Your task to perform on an android device: Go to battery settings Image 0: 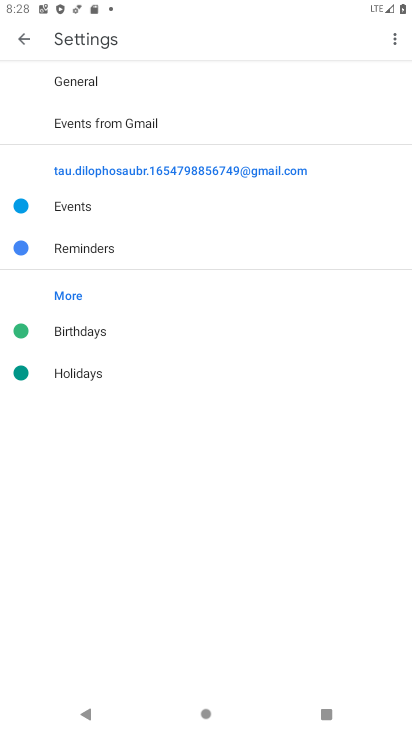
Step 0: press home button
Your task to perform on an android device: Go to battery settings Image 1: 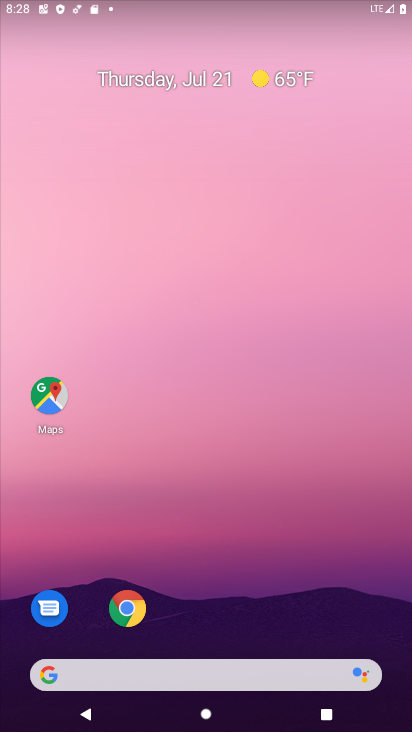
Step 1: drag from (204, 675) to (203, 164)
Your task to perform on an android device: Go to battery settings Image 2: 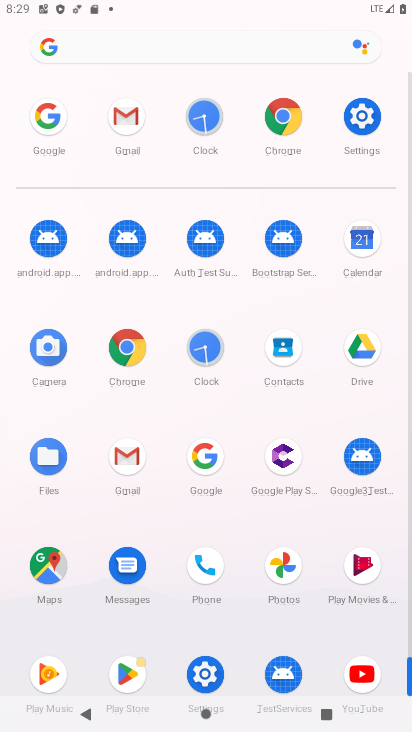
Step 2: click (361, 111)
Your task to perform on an android device: Go to battery settings Image 3: 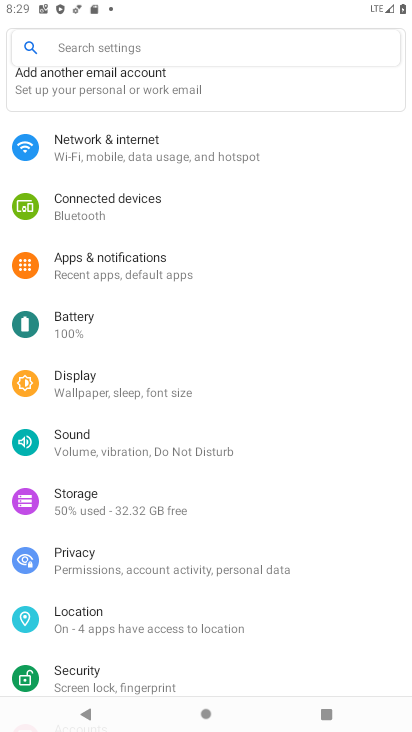
Step 3: click (81, 323)
Your task to perform on an android device: Go to battery settings Image 4: 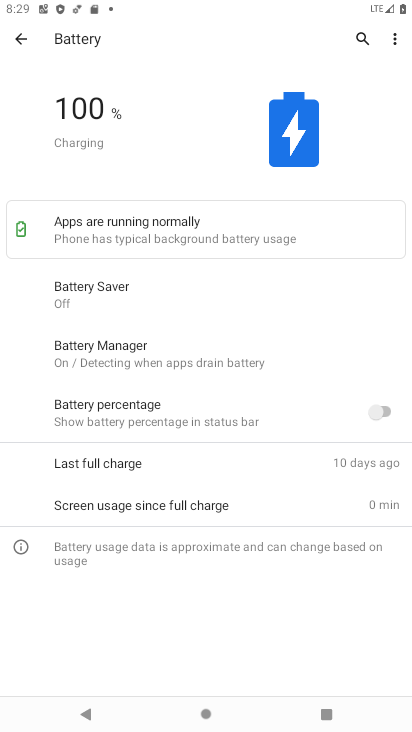
Step 4: task complete